Your task to perform on an android device: toggle location history Image 0: 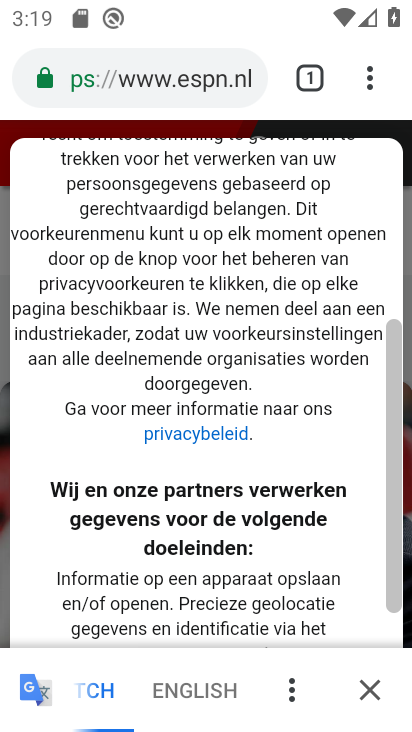
Step 0: press back button
Your task to perform on an android device: toggle location history Image 1: 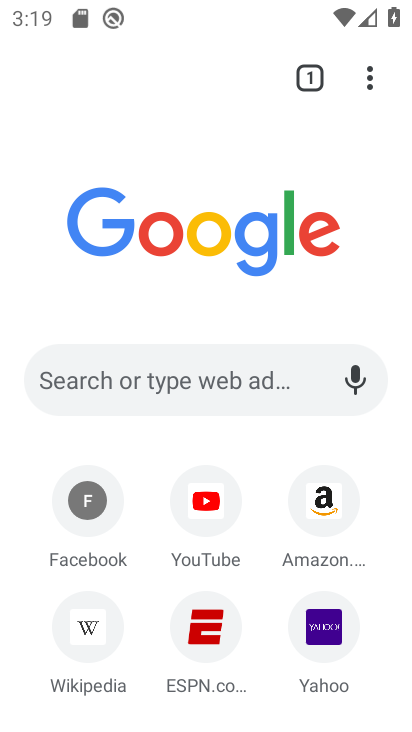
Step 1: press back button
Your task to perform on an android device: toggle location history Image 2: 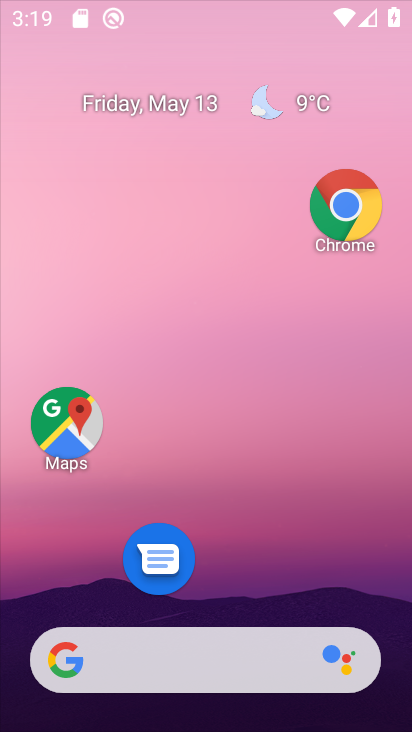
Step 2: drag from (133, 598) to (273, 103)
Your task to perform on an android device: toggle location history Image 3: 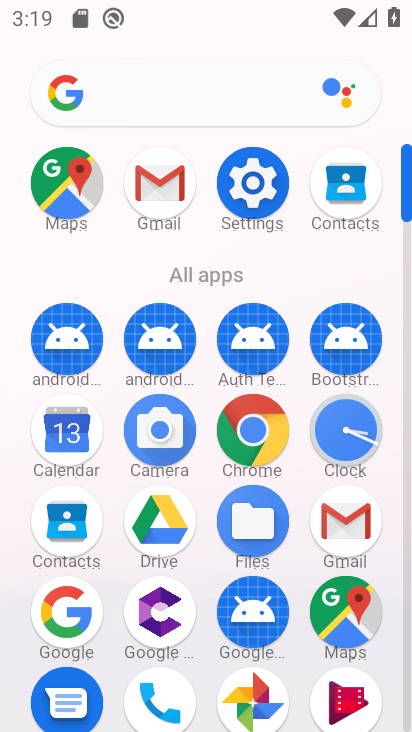
Step 3: click (258, 184)
Your task to perform on an android device: toggle location history Image 4: 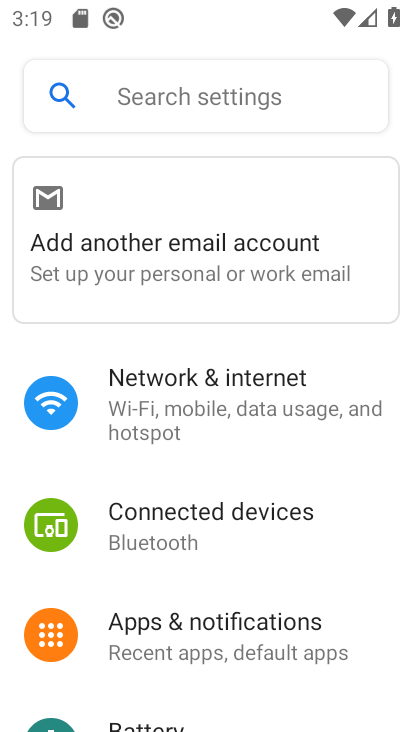
Step 4: drag from (175, 609) to (326, 147)
Your task to perform on an android device: toggle location history Image 5: 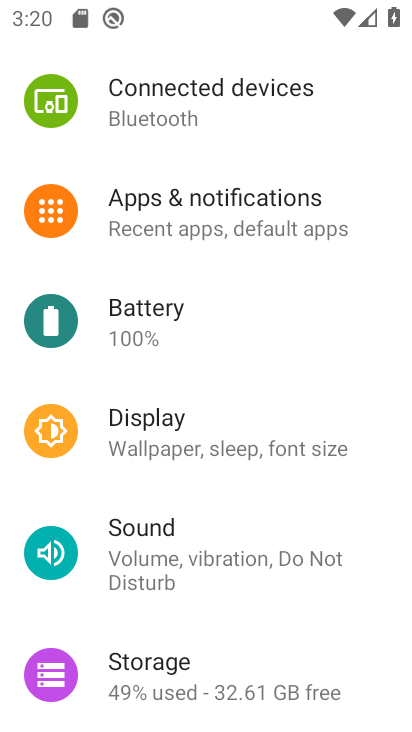
Step 5: drag from (168, 634) to (287, 146)
Your task to perform on an android device: toggle location history Image 6: 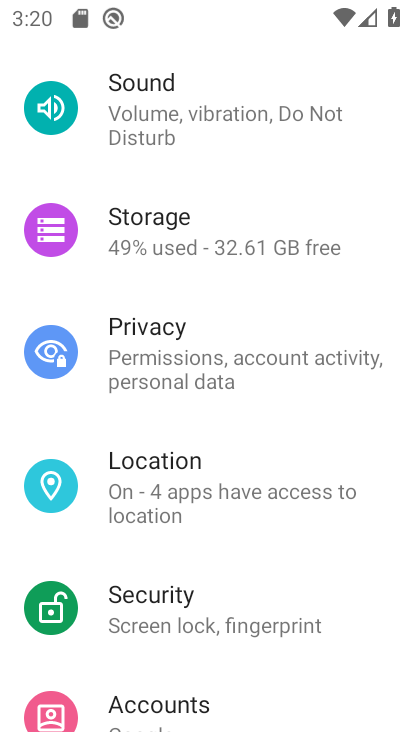
Step 6: click (158, 498)
Your task to perform on an android device: toggle location history Image 7: 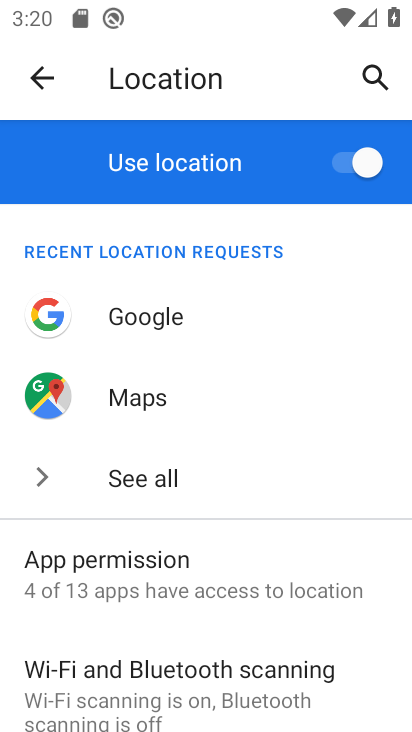
Step 7: drag from (153, 675) to (216, 283)
Your task to perform on an android device: toggle location history Image 8: 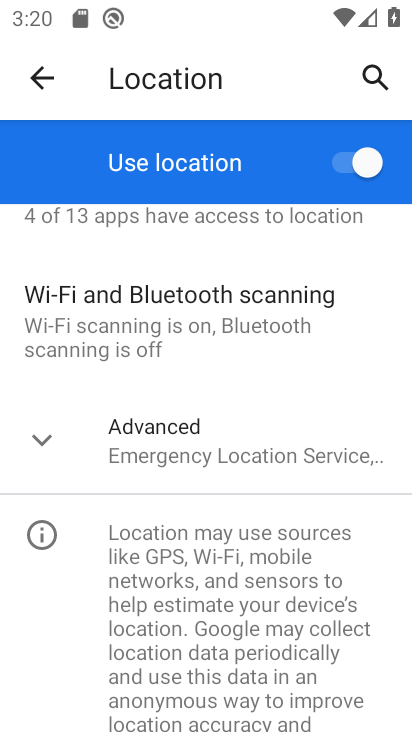
Step 8: click (167, 435)
Your task to perform on an android device: toggle location history Image 9: 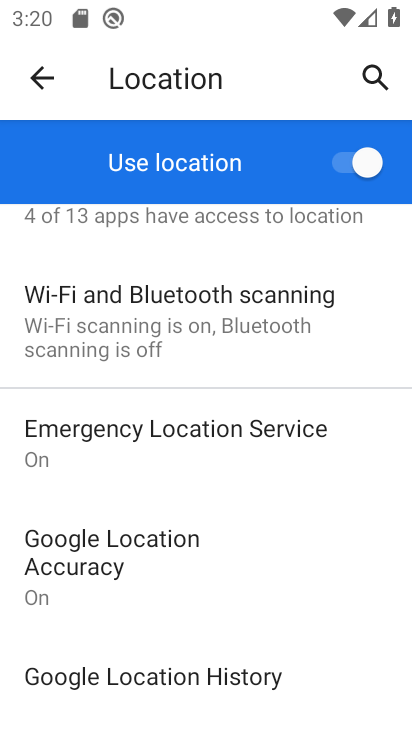
Step 9: click (128, 679)
Your task to perform on an android device: toggle location history Image 10: 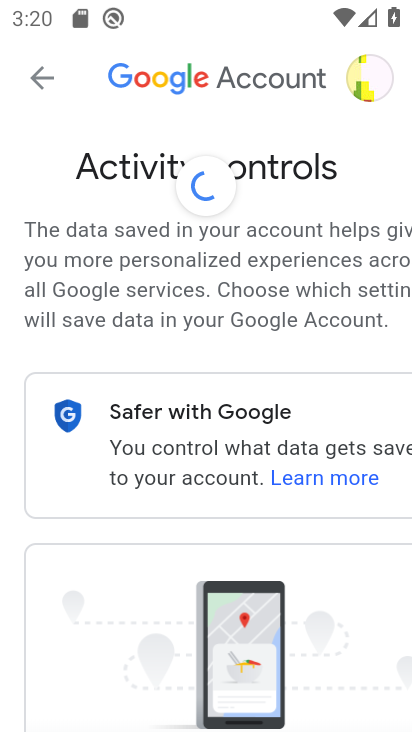
Step 10: drag from (157, 651) to (204, 171)
Your task to perform on an android device: toggle location history Image 11: 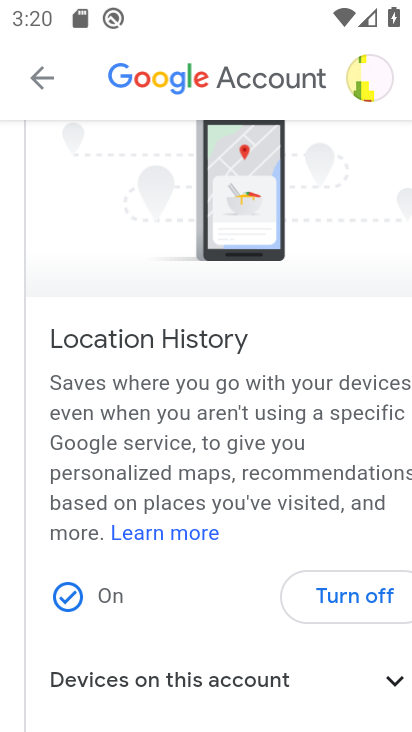
Step 11: click (333, 591)
Your task to perform on an android device: toggle location history Image 12: 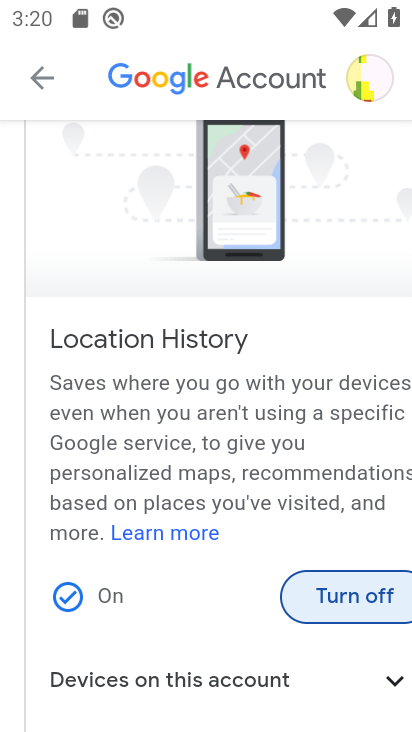
Step 12: click (342, 599)
Your task to perform on an android device: toggle location history Image 13: 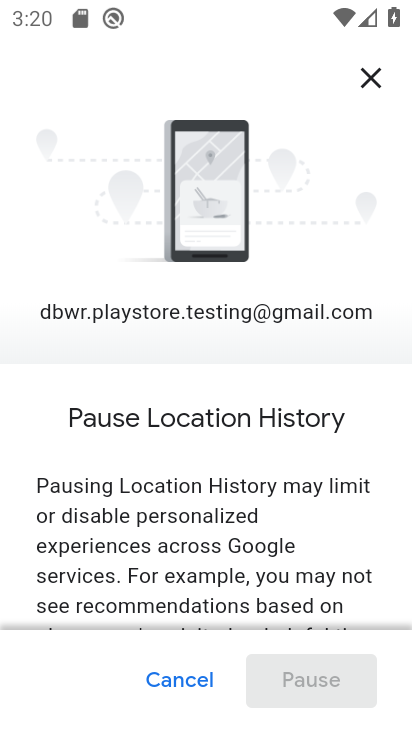
Step 13: drag from (229, 587) to (367, 90)
Your task to perform on an android device: toggle location history Image 14: 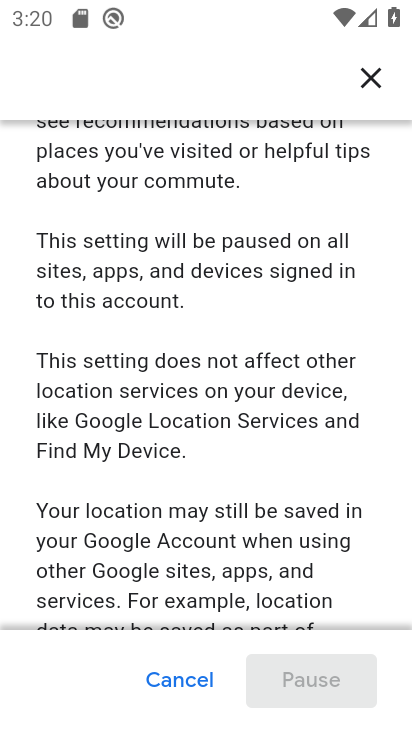
Step 14: drag from (255, 541) to (363, 55)
Your task to perform on an android device: toggle location history Image 15: 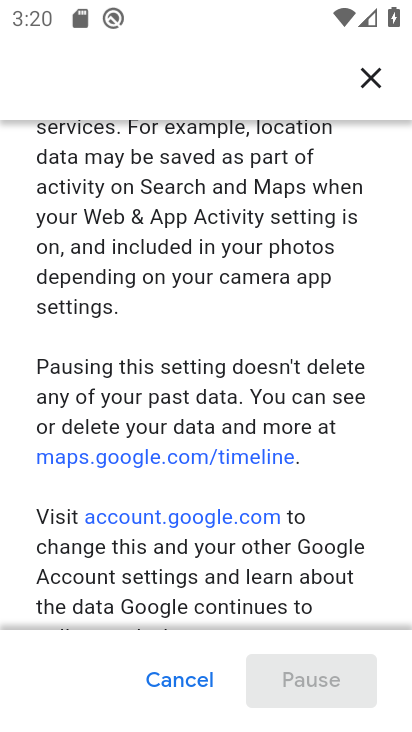
Step 15: drag from (214, 593) to (316, 79)
Your task to perform on an android device: toggle location history Image 16: 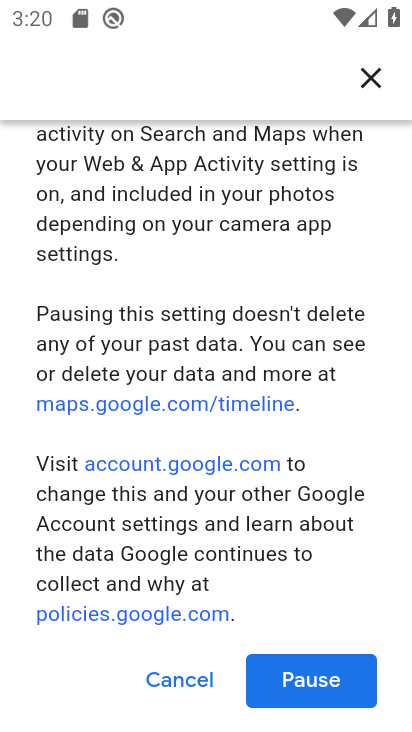
Step 16: click (290, 670)
Your task to perform on an android device: toggle location history Image 17: 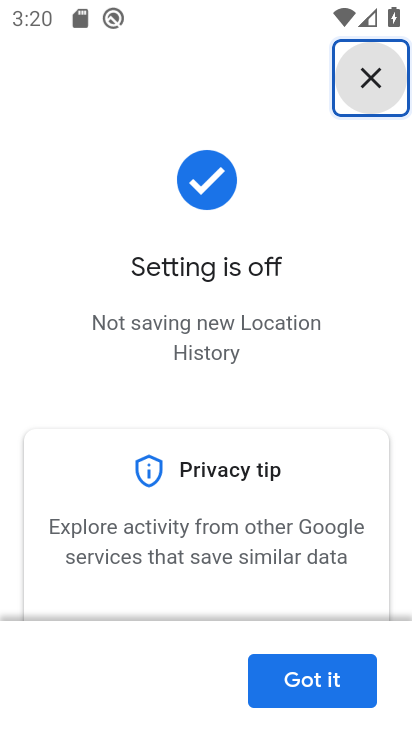
Step 17: task complete